Your task to perform on an android device: Go to display settings Image 0: 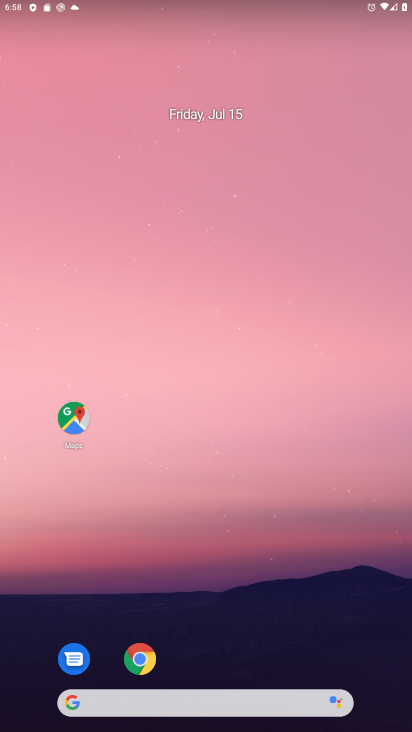
Step 0: drag from (383, 666) to (312, 31)
Your task to perform on an android device: Go to display settings Image 1: 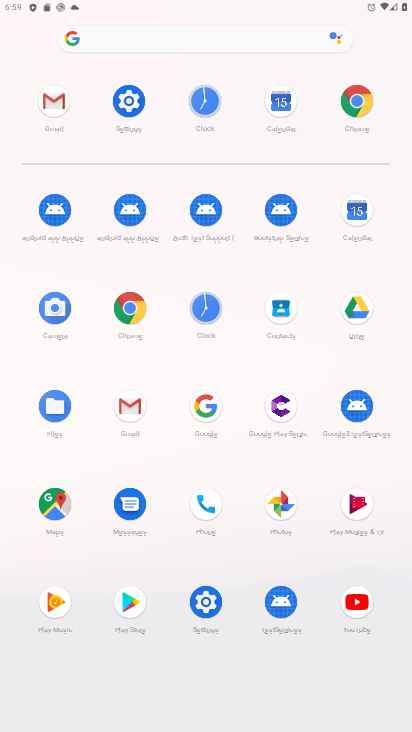
Step 1: click (205, 601)
Your task to perform on an android device: Go to display settings Image 2: 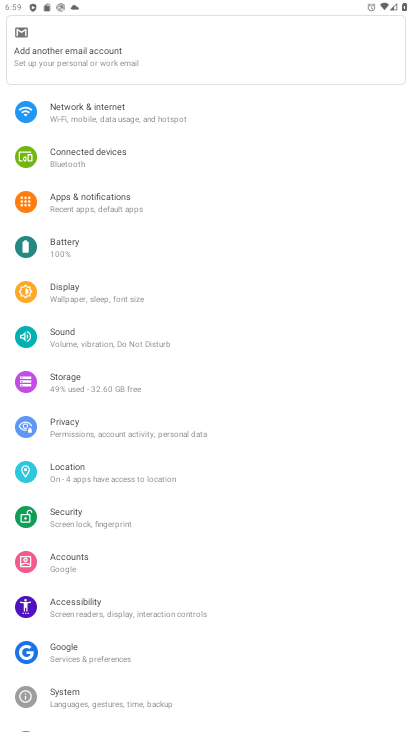
Step 2: click (64, 288)
Your task to perform on an android device: Go to display settings Image 3: 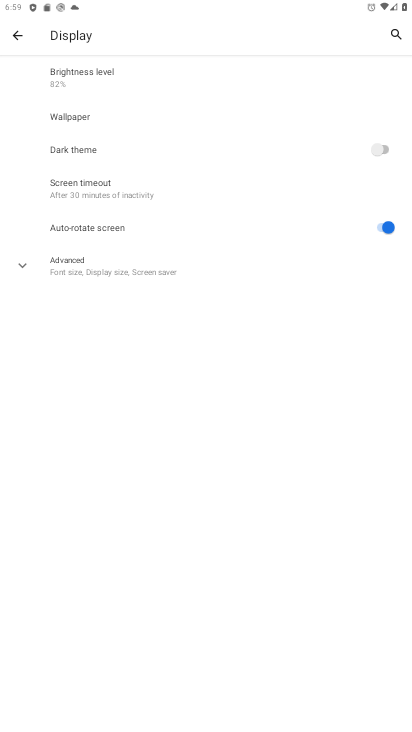
Step 3: click (19, 265)
Your task to perform on an android device: Go to display settings Image 4: 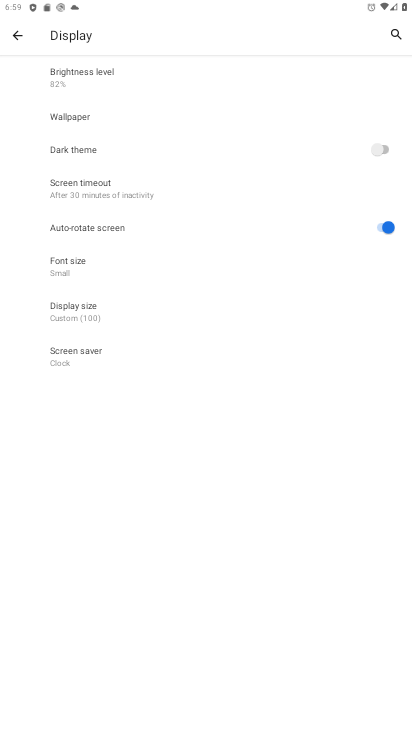
Step 4: task complete